Your task to perform on an android device: Find coffee shops on Maps Image 0: 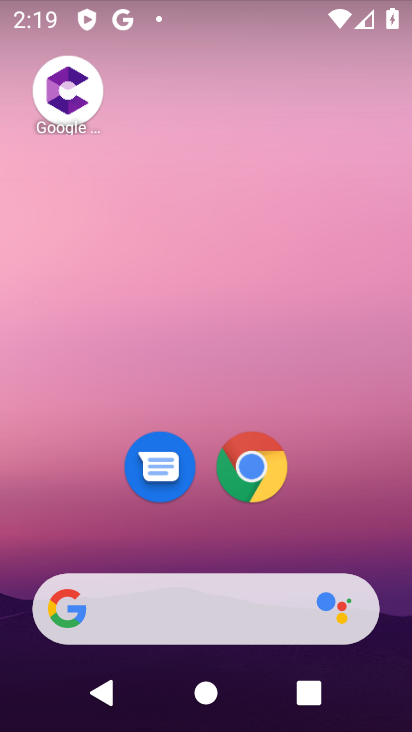
Step 0: drag from (187, 551) to (204, 235)
Your task to perform on an android device: Find coffee shops on Maps Image 1: 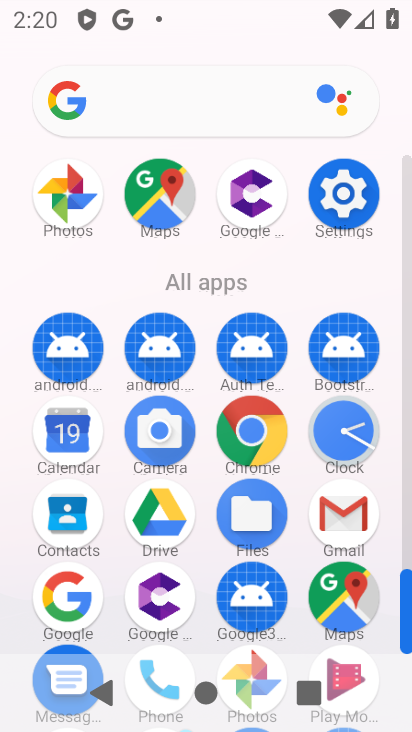
Step 1: click (320, 596)
Your task to perform on an android device: Find coffee shops on Maps Image 2: 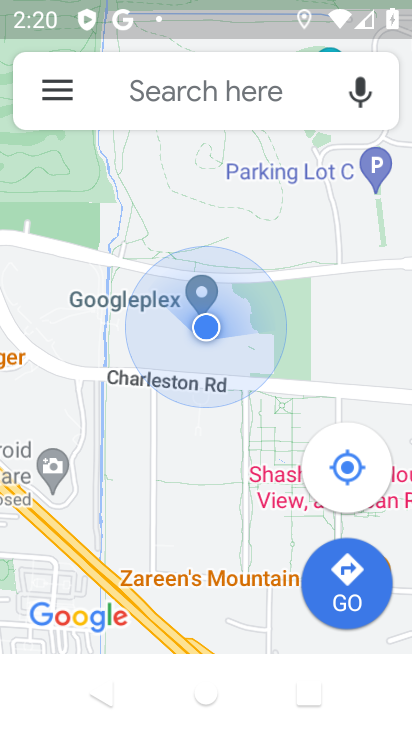
Step 2: drag from (184, 603) to (221, 220)
Your task to perform on an android device: Find coffee shops on Maps Image 3: 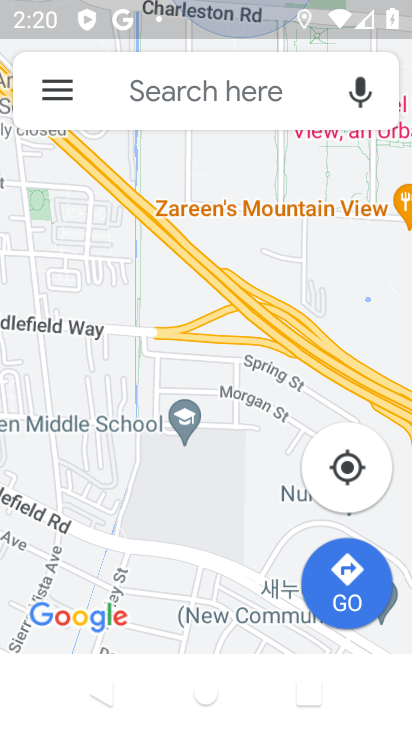
Step 3: drag from (188, 612) to (180, 305)
Your task to perform on an android device: Find coffee shops on Maps Image 4: 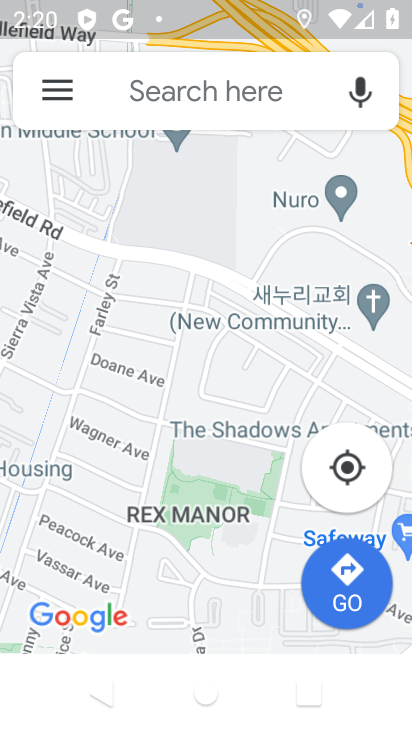
Step 4: drag from (197, 234) to (195, 653)
Your task to perform on an android device: Find coffee shops on Maps Image 5: 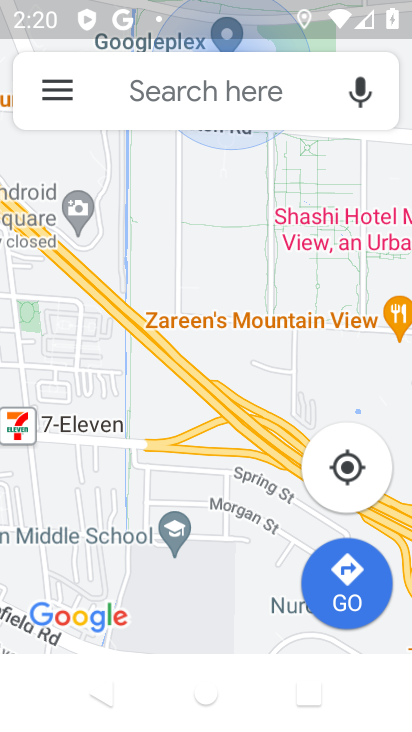
Step 5: drag from (242, 257) to (215, 576)
Your task to perform on an android device: Find coffee shops on Maps Image 6: 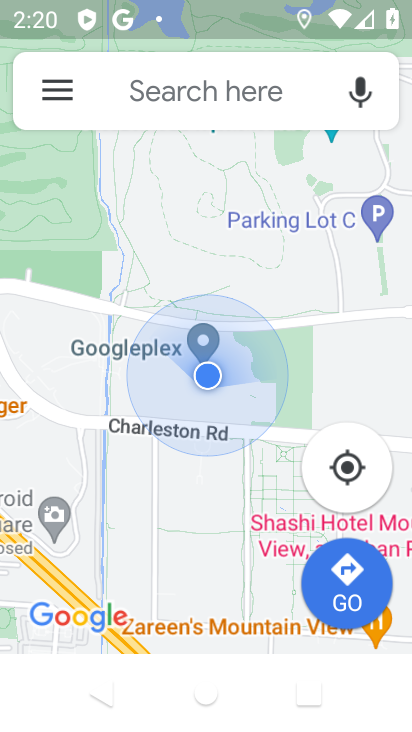
Step 6: drag from (264, 260) to (241, 576)
Your task to perform on an android device: Find coffee shops on Maps Image 7: 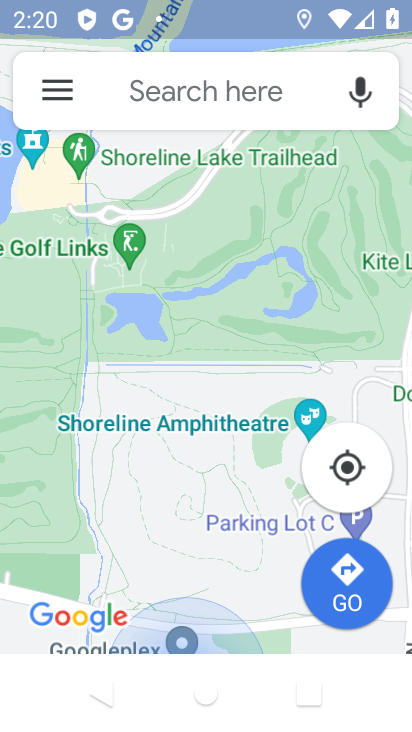
Step 7: drag from (285, 234) to (212, 551)
Your task to perform on an android device: Find coffee shops on Maps Image 8: 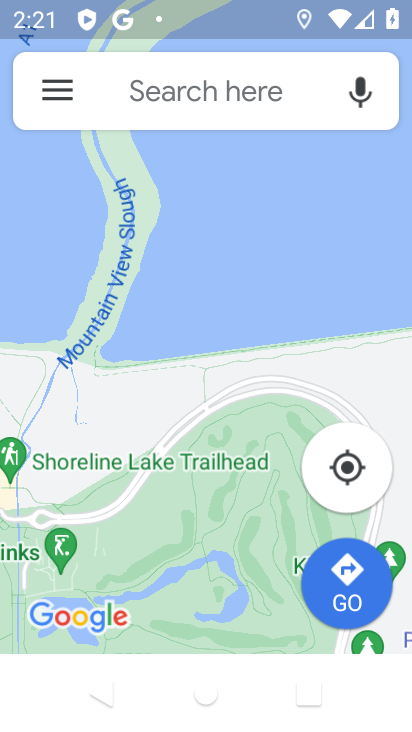
Step 8: drag from (230, 266) to (204, 614)
Your task to perform on an android device: Find coffee shops on Maps Image 9: 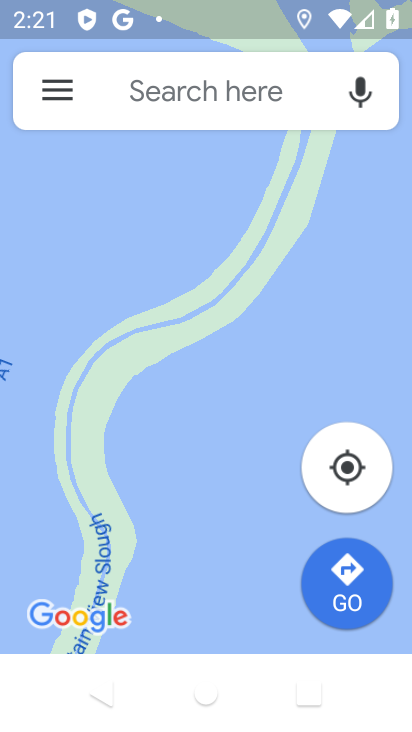
Step 9: drag from (269, 236) to (87, 476)
Your task to perform on an android device: Find coffee shops on Maps Image 10: 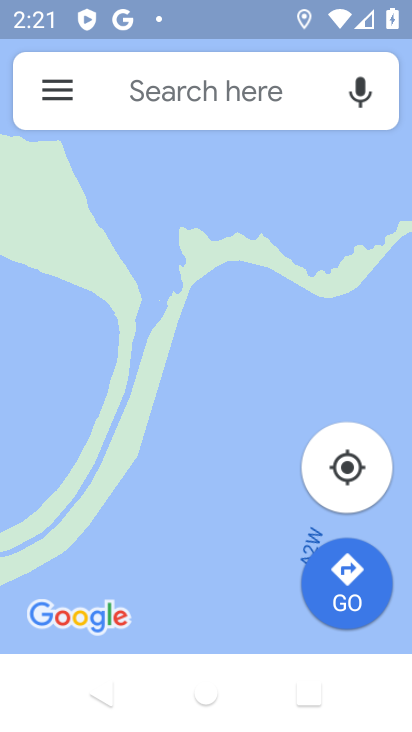
Step 10: drag from (153, 556) to (162, 194)
Your task to perform on an android device: Find coffee shops on Maps Image 11: 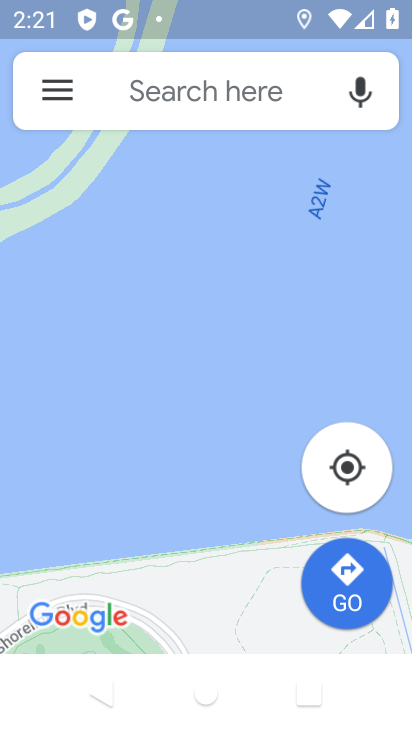
Step 11: drag from (173, 454) to (286, 234)
Your task to perform on an android device: Find coffee shops on Maps Image 12: 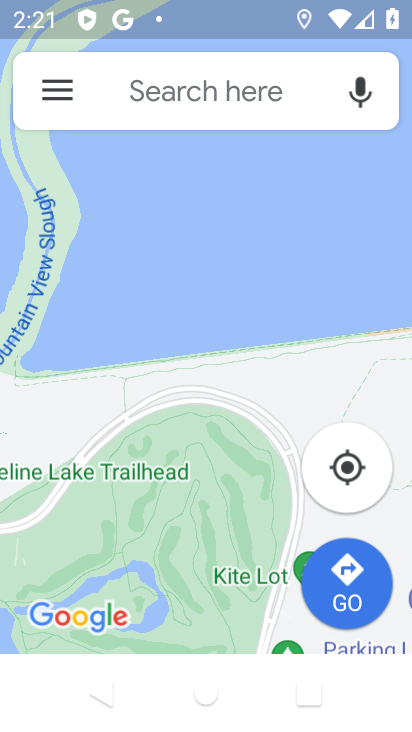
Step 12: drag from (49, 234) to (204, 563)
Your task to perform on an android device: Find coffee shops on Maps Image 13: 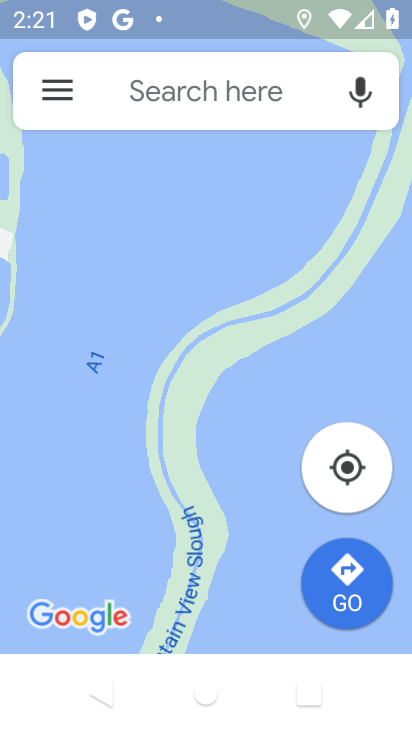
Step 13: drag from (199, 391) to (248, 175)
Your task to perform on an android device: Find coffee shops on Maps Image 14: 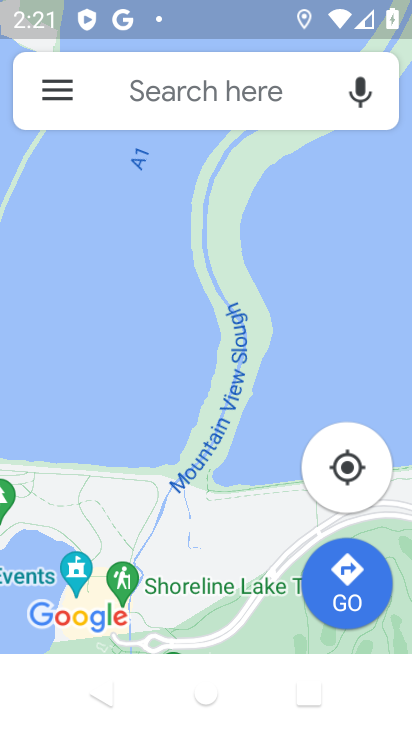
Step 14: drag from (195, 484) to (226, 189)
Your task to perform on an android device: Find coffee shops on Maps Image 15: 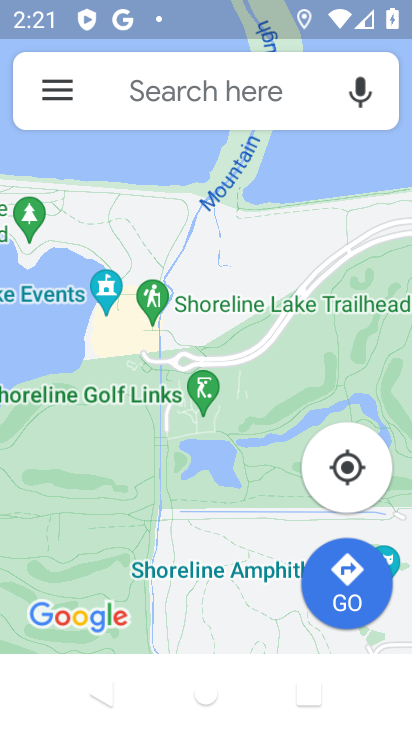
Step 15: click (193, 74)
Your task to perform on an android device: Find coffee shops on Maps Image 16: 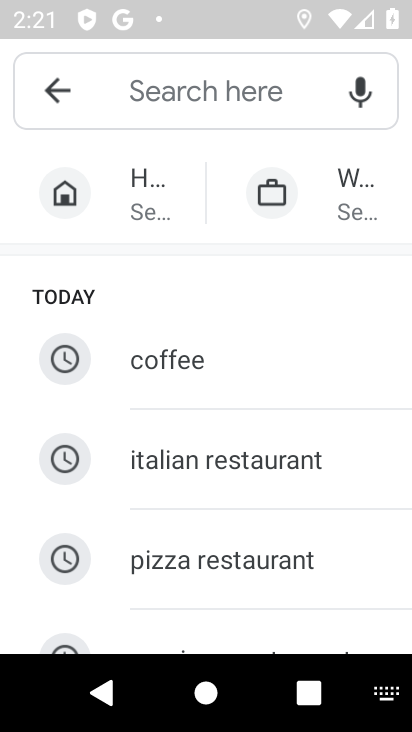
Step 16: click (169, 371)
Your task to perform on an android device: Find coffee shops on Maps Image 17: 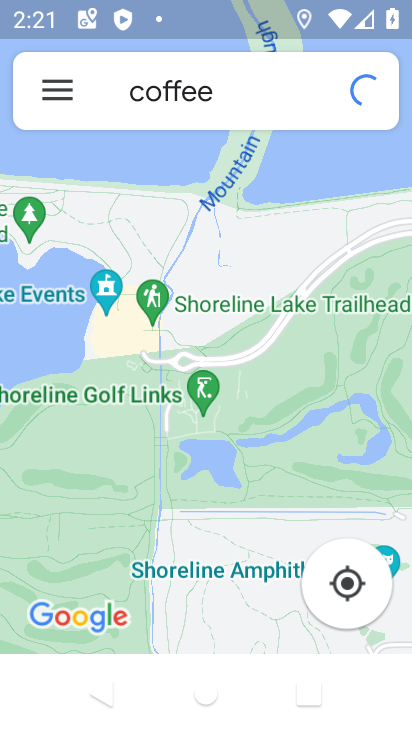
Step 17: task complete